Your task to perform on an android device: open chrome and create a bookmark for the current page Image 0: 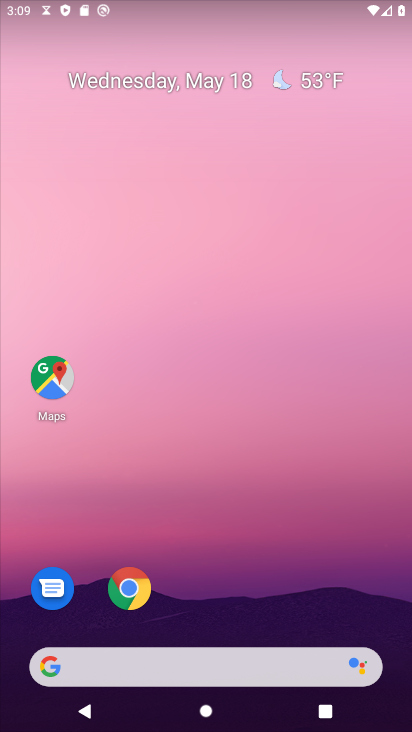
Step 0: click (120, 592)
Your task to perform on an android device: open chrome and create a bookmark for the current page Image 1: 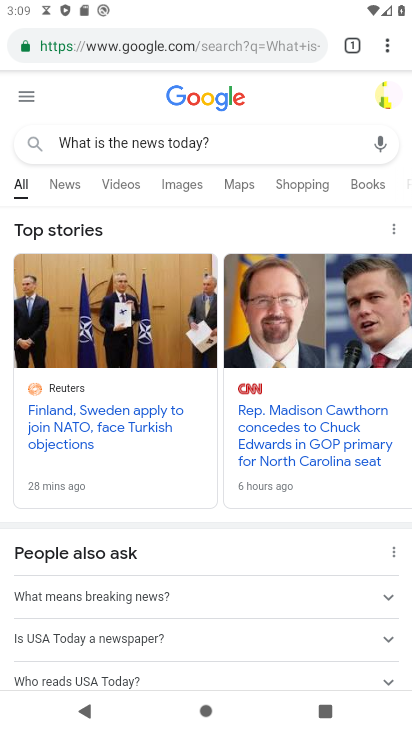
Step 1: task complete